Your task to perform on an android device: open app "Gmail" Image 0: 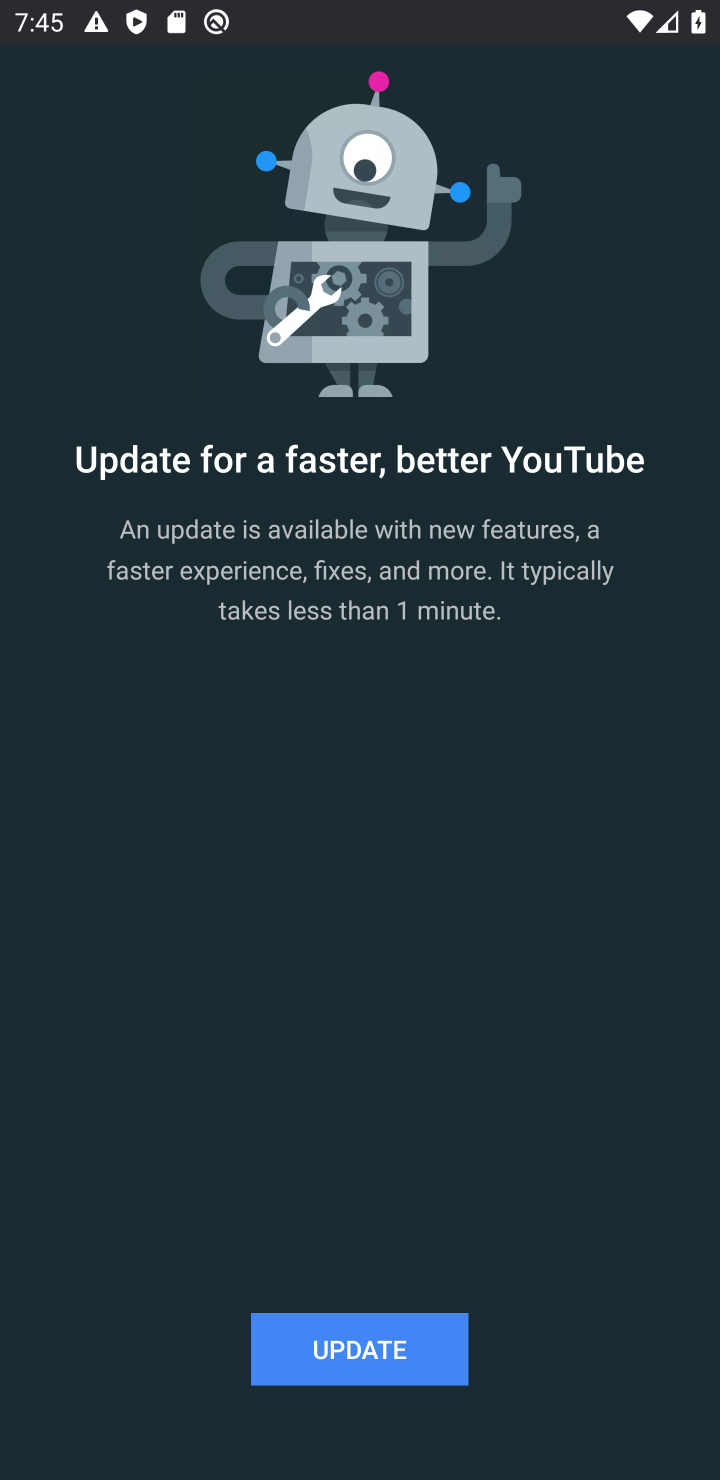
Step 0: press home button
Your task to perform on an android device: open app "Gmail" Image 1: 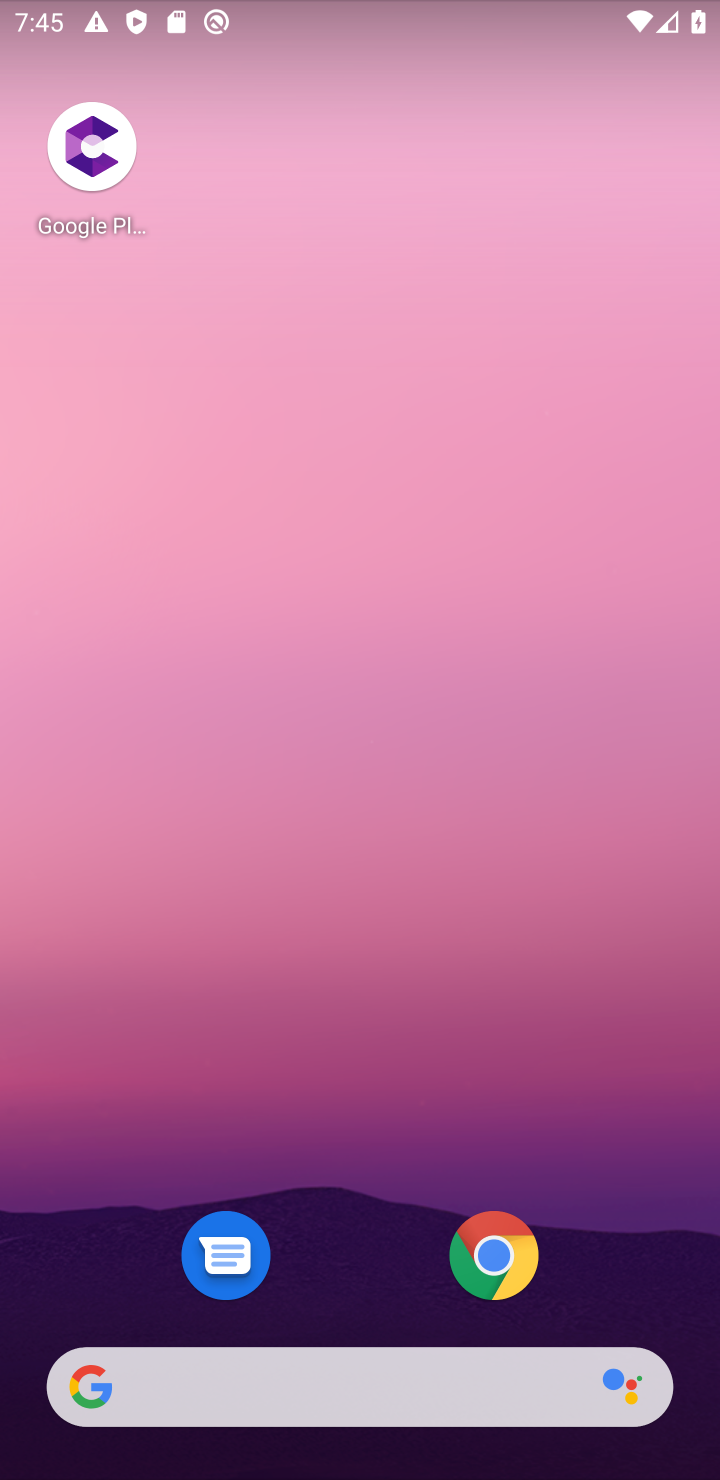
Step 1: drag from (258, 1177) to (172, 408)
Your task to perform on an android device: open app "Gmail" Image 2: 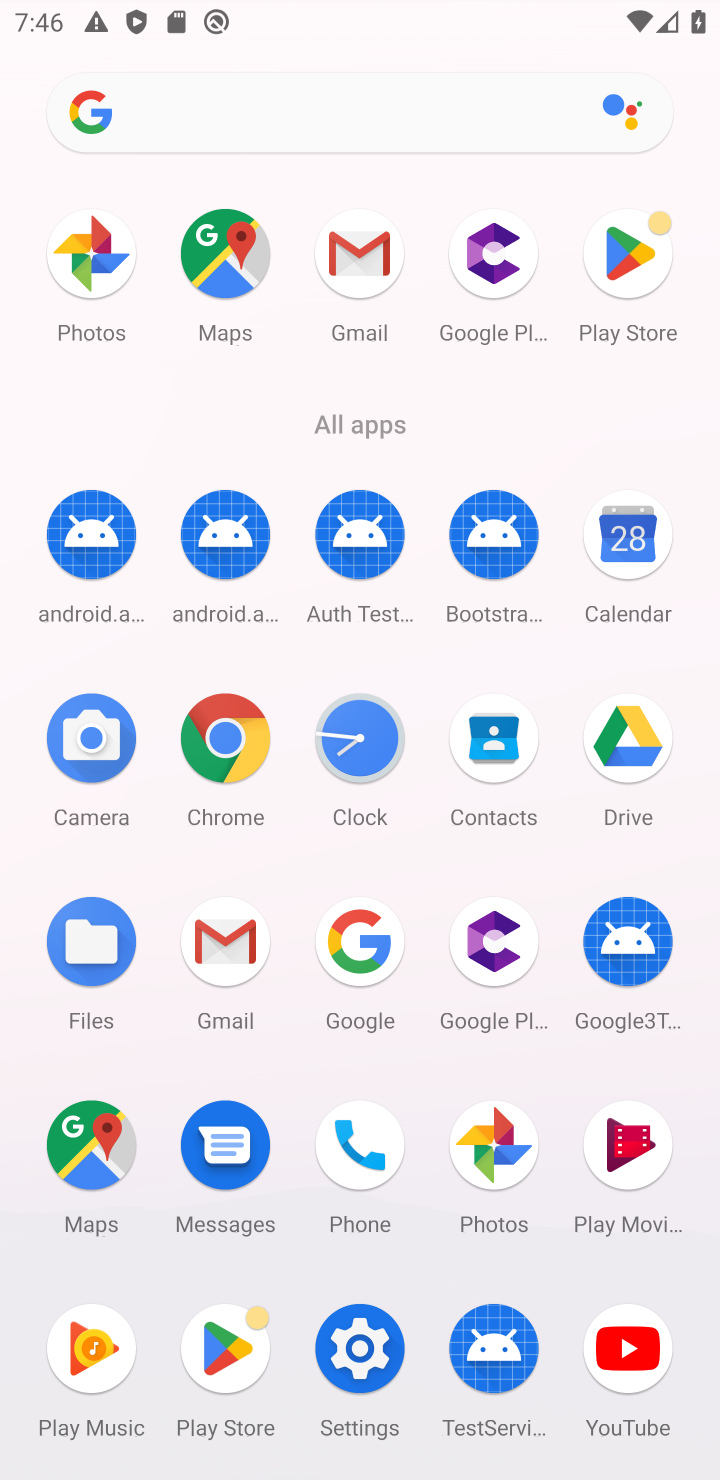
Step 2: click (224, 969)
Your task to perform on an android device: open app "Gmail" Image 3: 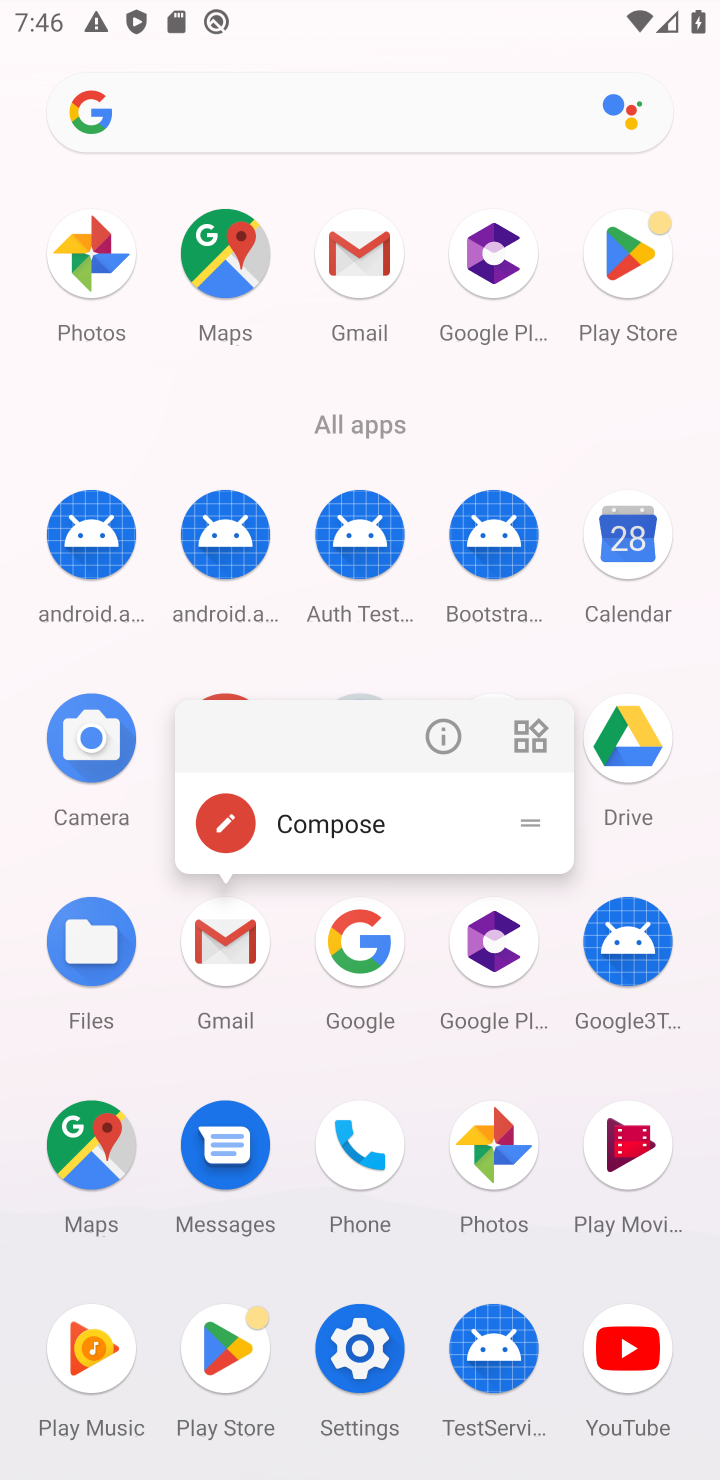
Step 3: click (258, 993)
Your task to perform on an android device: open app "Gmail" Image 4: 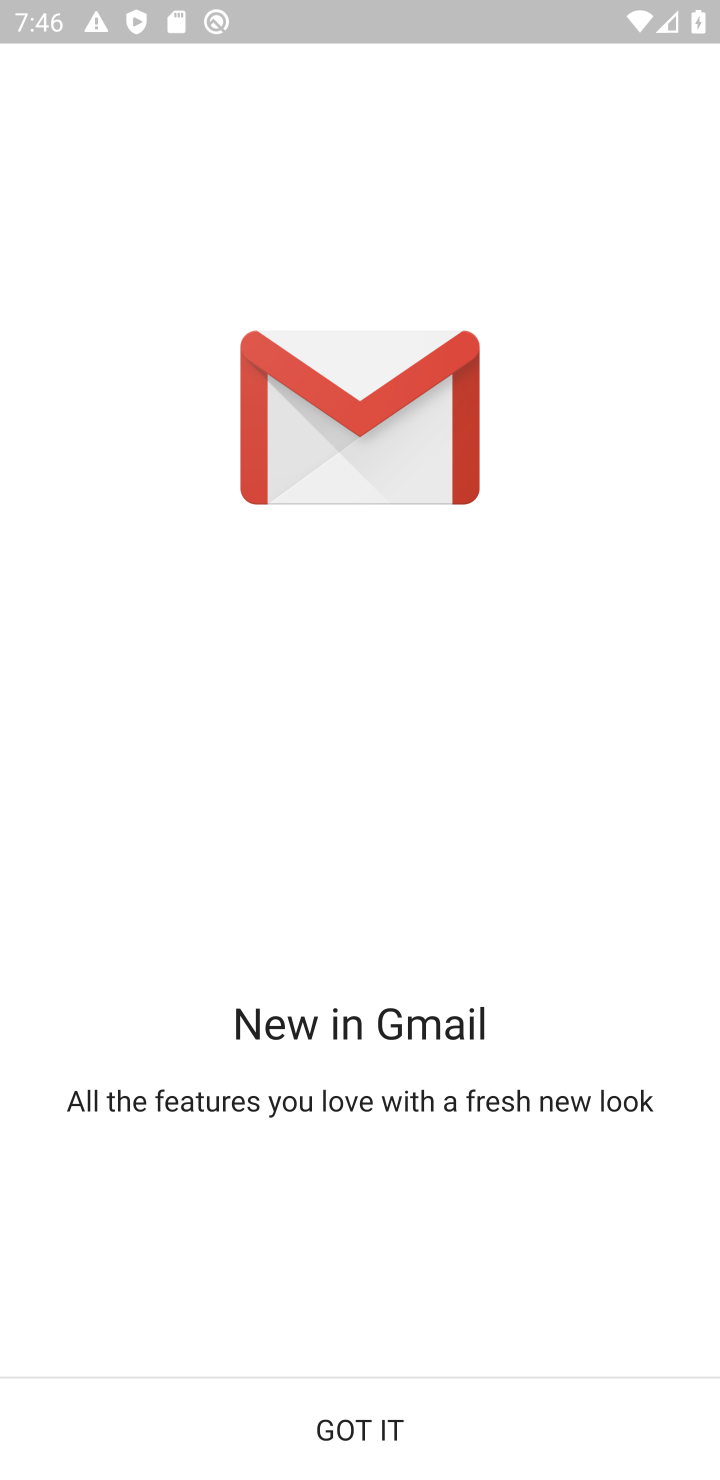
Step 4: click (453, 1427)
Your task to perform on an android device: open app "Gmail" Image 5: 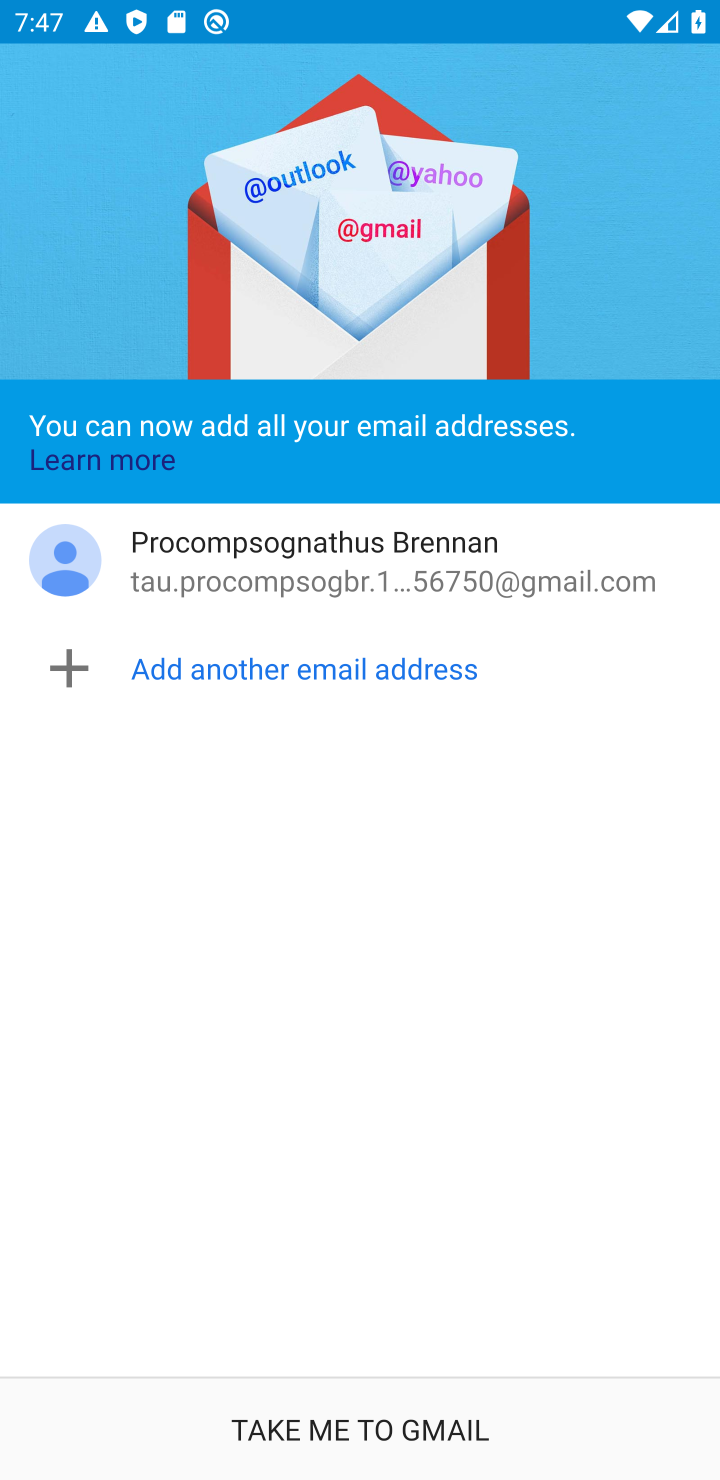
Step 5: click (393, 1449)
Your task to perform on an android device: open app "Gmail" Image 6: 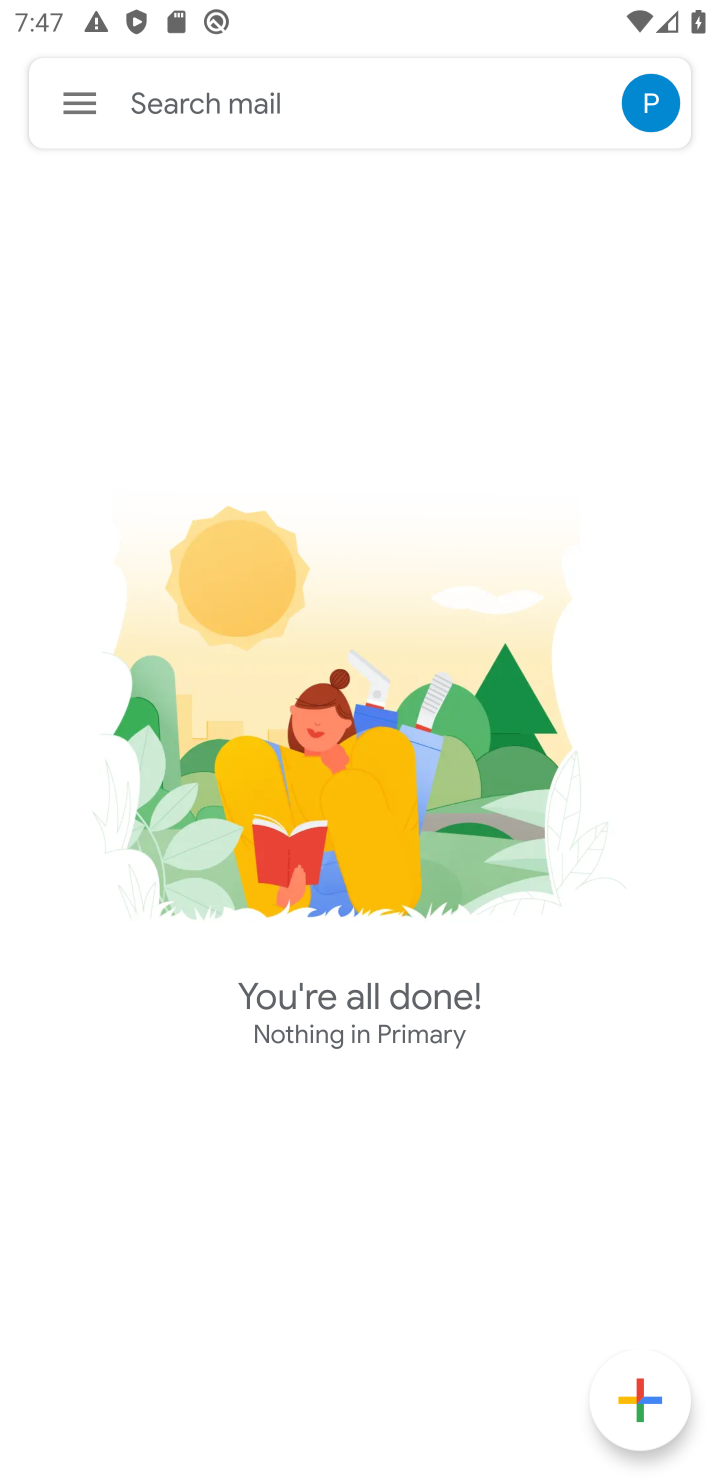
Step 6: task complete